Your task to perform on an android device: change your default location settings in chrome Image 0: 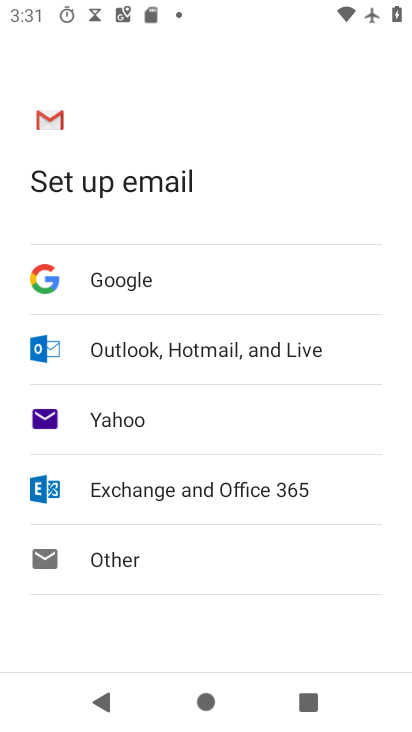
Step 0: press home button
Your task to perform on an android device: change your default location settings in chrome Image 1: 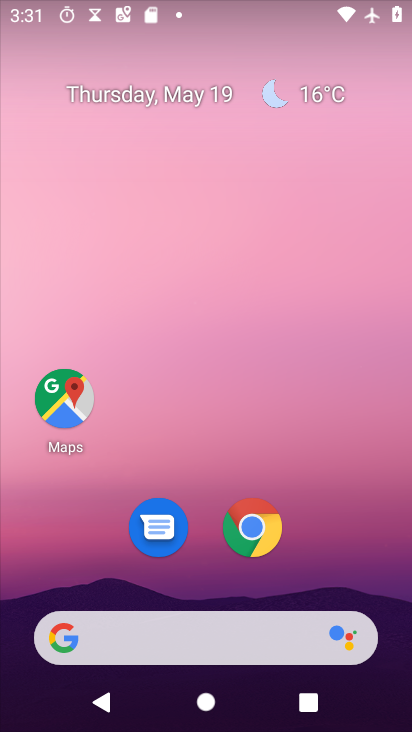
Step 1: click (283, 538)
Your task to perform on an android device: change your default location settings in chrome Image 2: 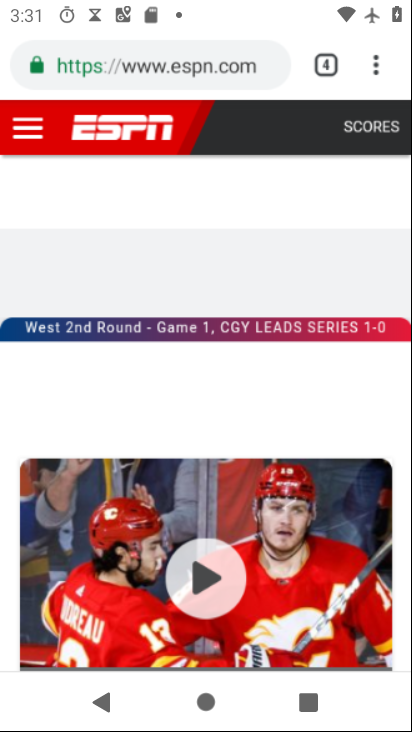
Step 2: click (369, 74)
Your task to perform on an android device: change your default location settings in chrome Image 3: 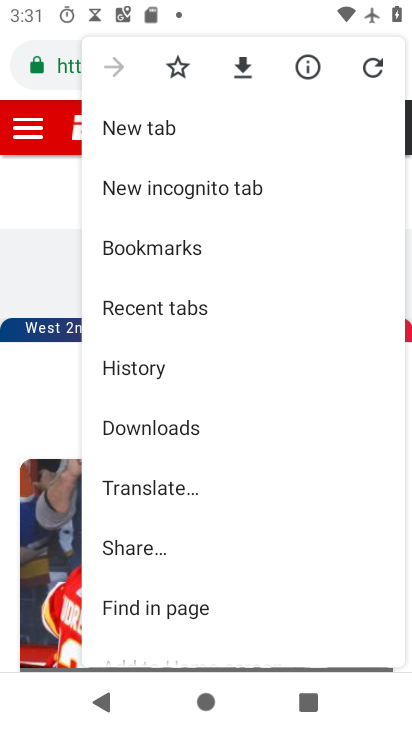
Step 3: drag from (224, 580) to (211, 192)
Your task to perform on an android device: change your default location settings in chrome Image 4: 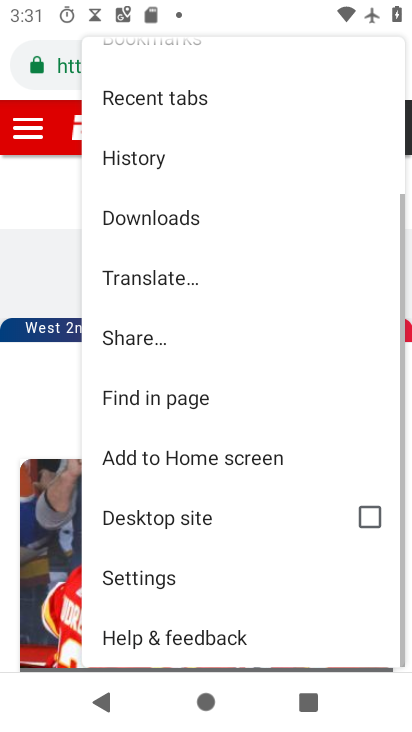
Step 4: click (232, 592)
Your task to perform on an android device: change your default location settings in chrome Image 5: 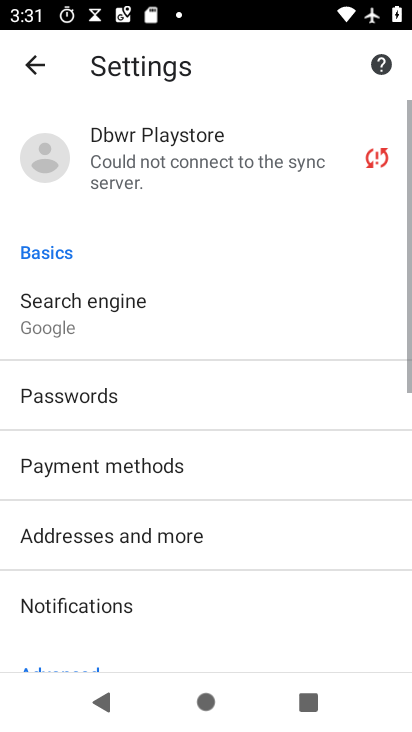
Step 5: drag from (198, 591) to (178, 131)
Your task to perform on an android device: change your default location settings in chrome Image 6: 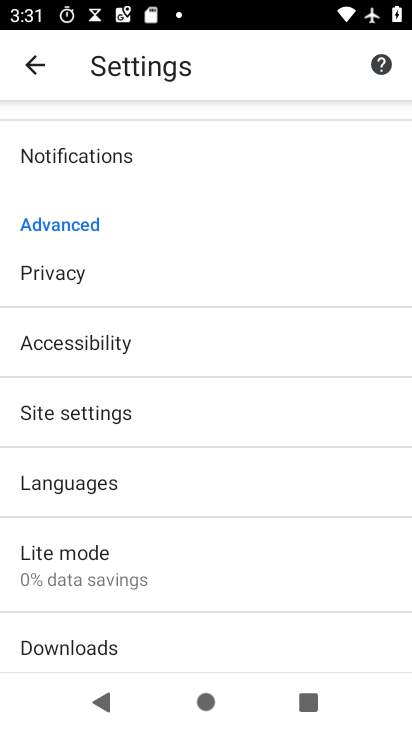
Step 6: click (154, 411)
Your task to perform on an android device: change your default location settings in chrome Image 7: 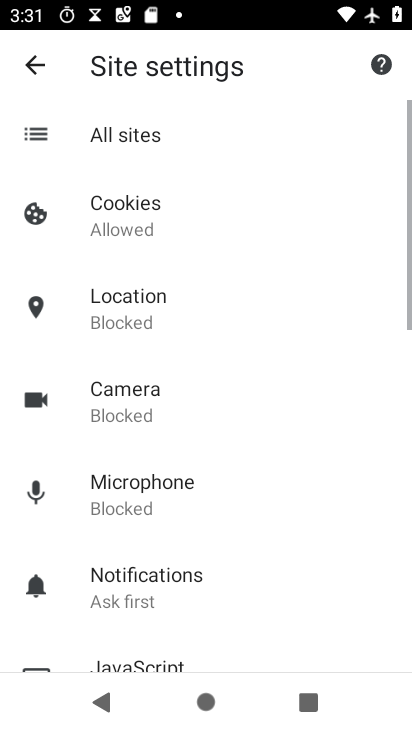
Step 7: click (133, 310)
Your task to perform on an android device: change your default location settings in chrome Image 8: 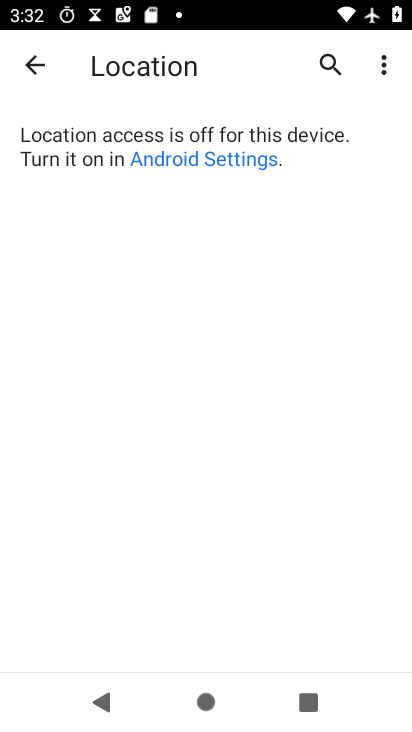
Step 8: click (217, 163)
Your task to perform on an android device: change your default location settings in chrome Image 9: 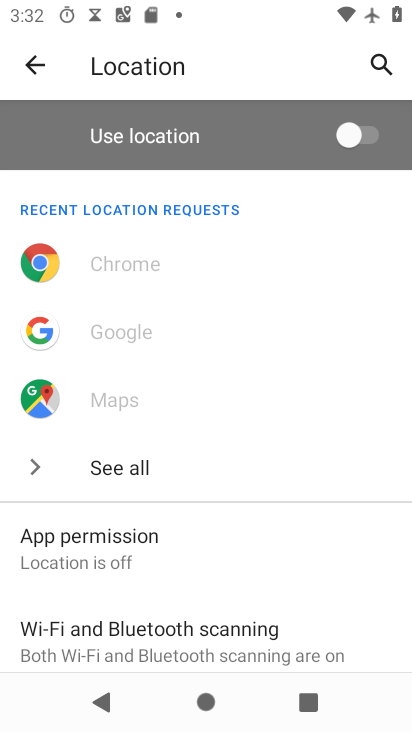
Step 9: click (356, 131)
Your task to perform on an android device: change your default location settings in chrome Image 10: 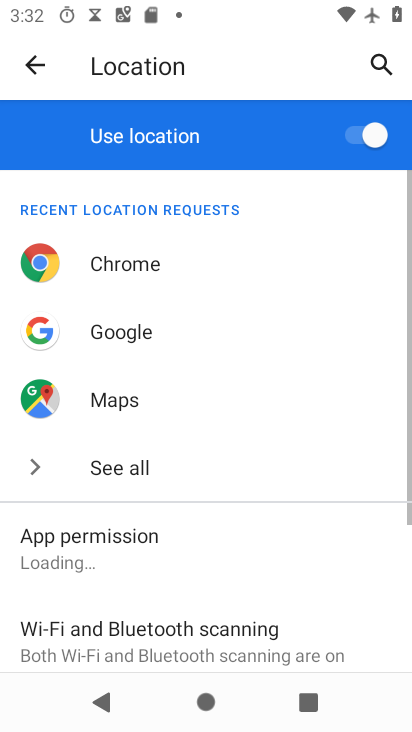
Step 10: task complete